Your task to perform on an android device: turn pop-ups on in chrome Image 0: 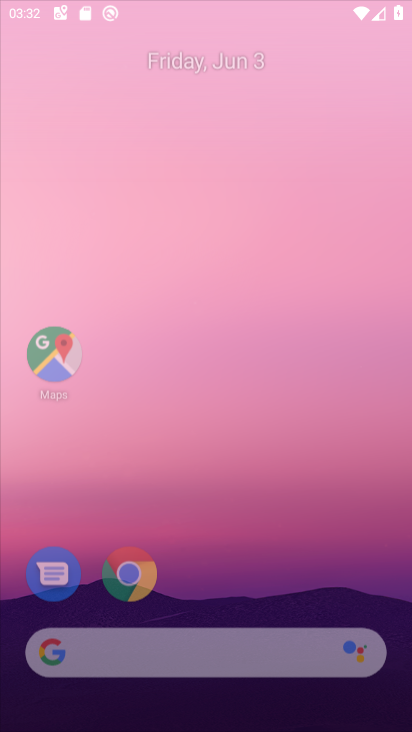
Step 0: drag from (298, 544) to (275, 170)
Your task to perform on an android device: turn pop-ups on in chrome Image 1: 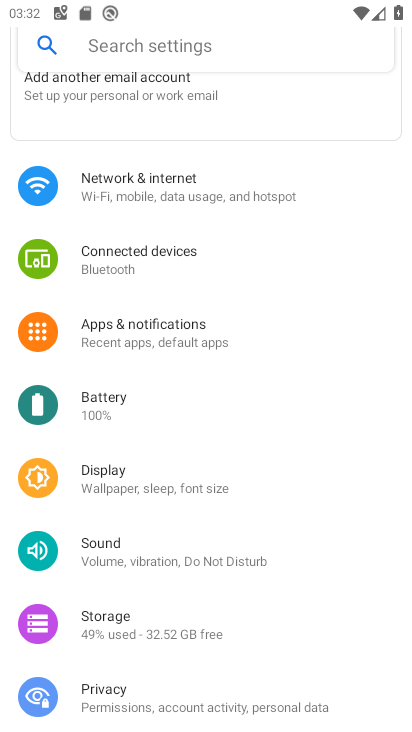
Step 1: press home button
Your task to perform on an android device: turn pop-ups on in chrome Image 2: 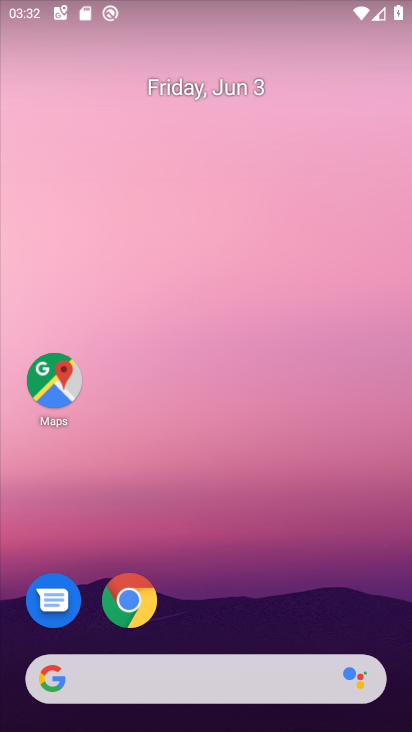
Step 2: click (133, 597)
Your task to perform on an android device: turn pop-ups on in chrome Image 3: 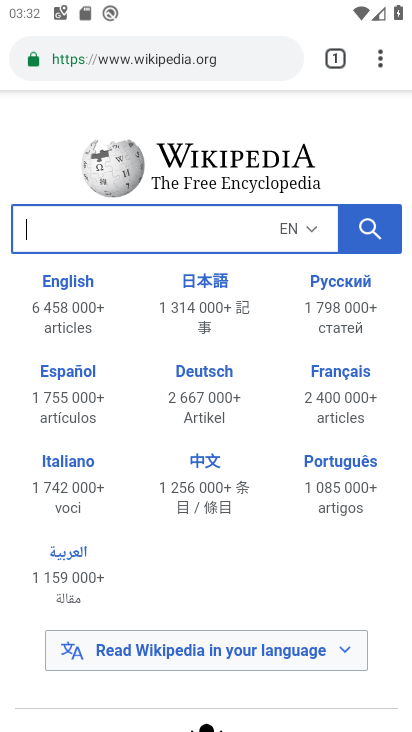
Step 3: drag from (378, 49) to (225, 644)
Your task to perform on an android device: turn pop-ups on in chrome Image 4: 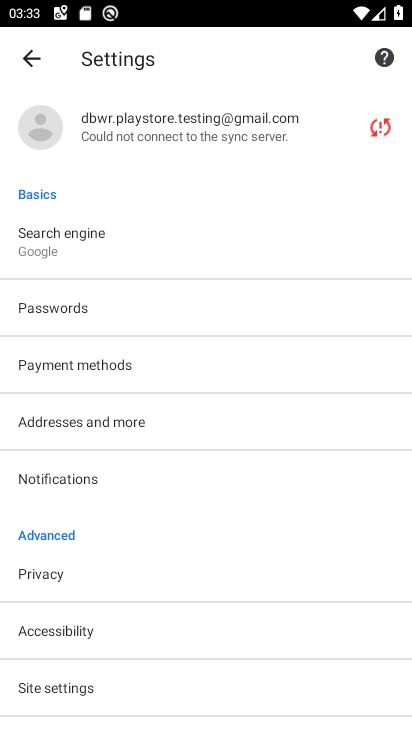
Step 4: drag from (199, 616) to (241, 244)
Your task to perform on an android device: turn pop-ups on in chrome Image 5: 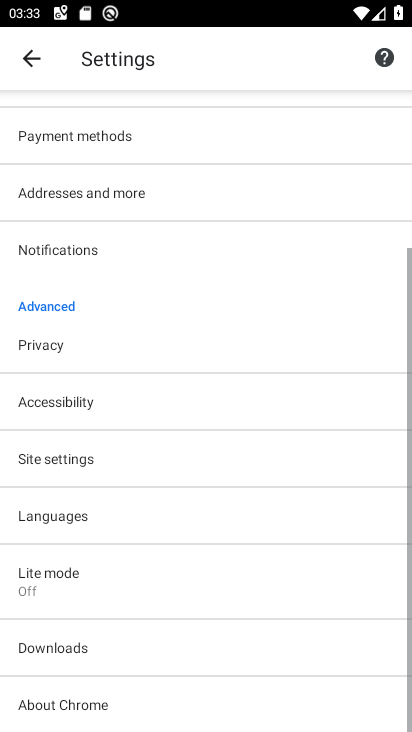
Step 5: click (175, 457)
Your task to perform on an android device: turn pop-ups on in chrome Image 6: 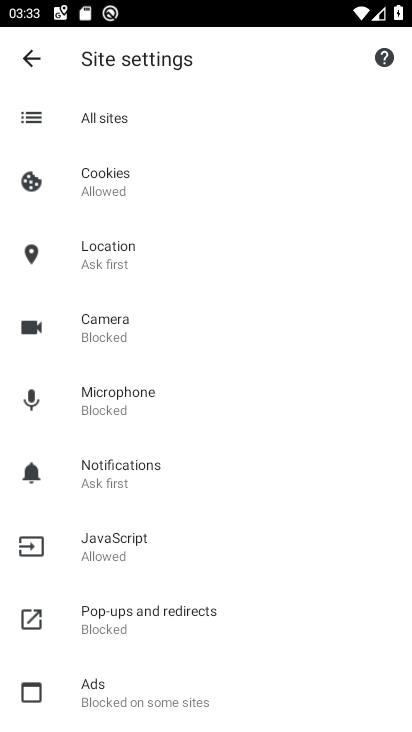
Step 6: click (194, 617)
Your task to perform on an android device: turn pop-ups on in chrome Image 7: 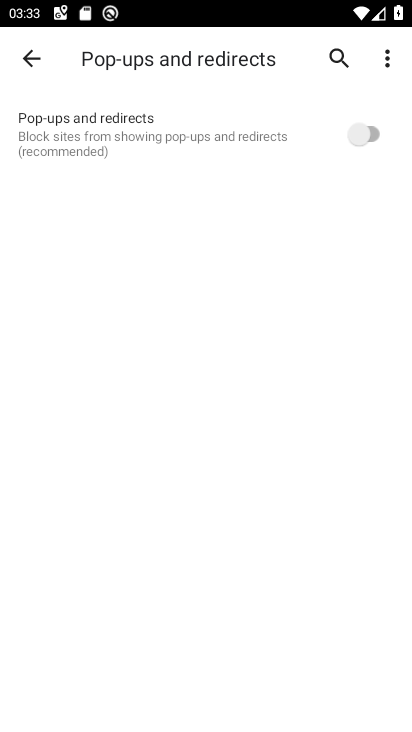
Step 7: click (344, 135)
Your task to perform on an android device: turn pop-ups on in chrome Image 8: 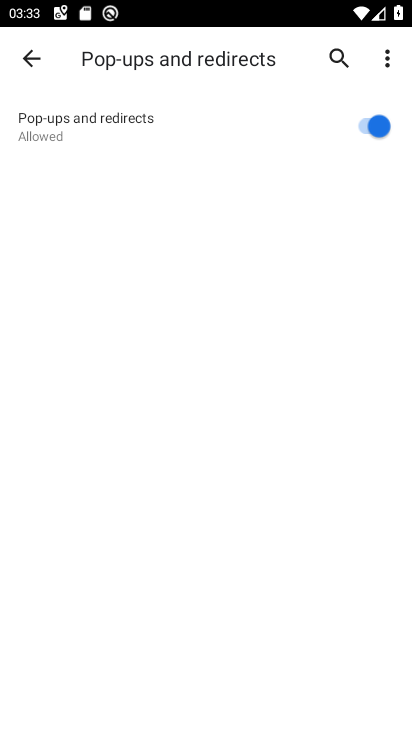
Step 8: task complete